Your task to perform on an android device: Go to ESPN.com Image 0: 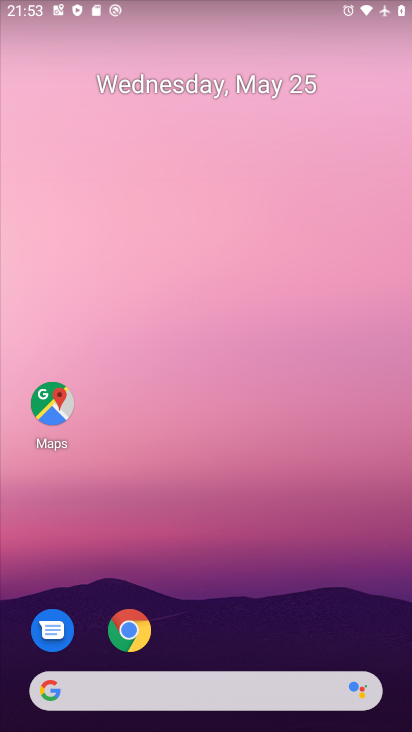
Step 0: click (126, 630)
Your task to perform on an android device: Go to ESPN.com Image 1: 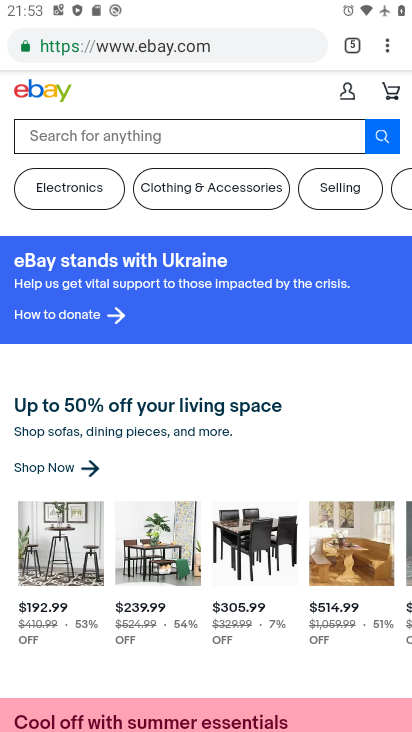
Step 1: click (356, 39)
Your task to perform on an android device: Go to ESPN.com Image 2: 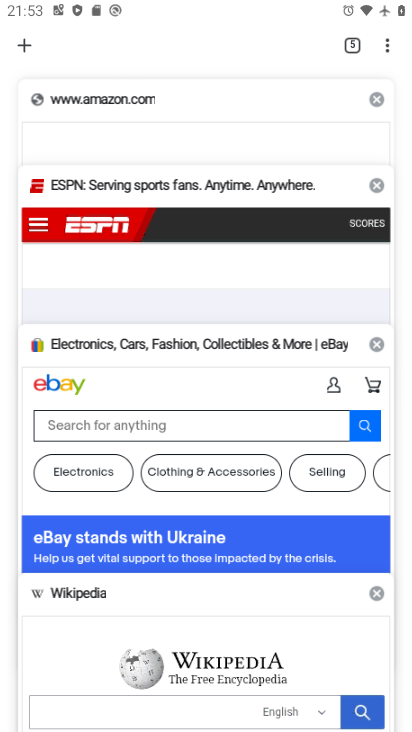
Step 2: click (98, 238)
Your task to perform on an android device: Go to ESPN.com Image 3: 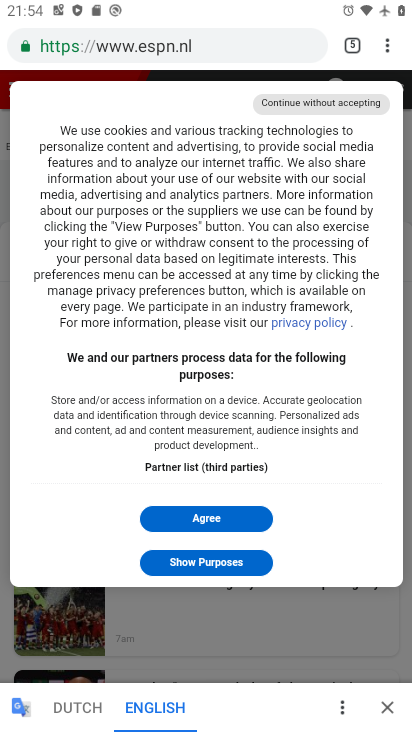
Step 3: task complete